Your task to perform on an android device: Check the news Image 0: 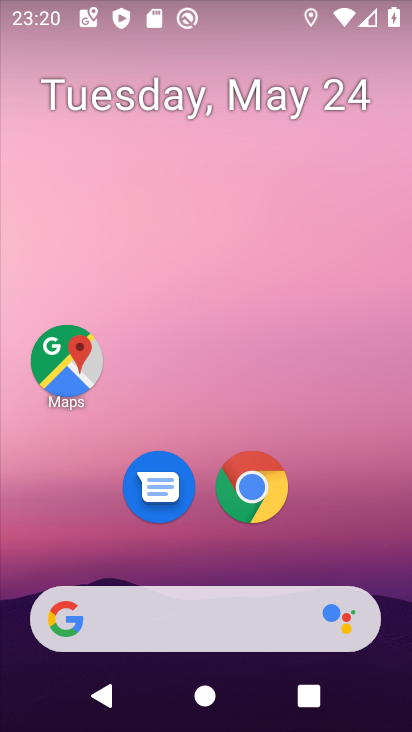
Step 0: click (204, 642)
Your task to perform on an android device: Check the news Image 1: 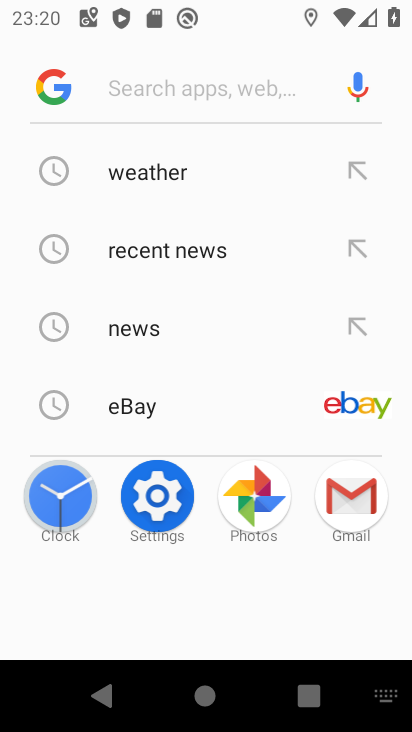
Step 1: click (144, 330)
Your task to perform on an android device: Check the news Image 2: 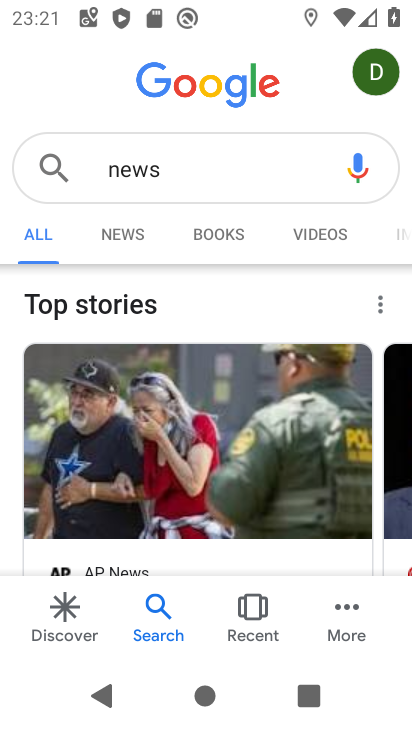
Step 2: task complete